Your task to perform on an android device: Show me the alarms in the clock app Image 0: 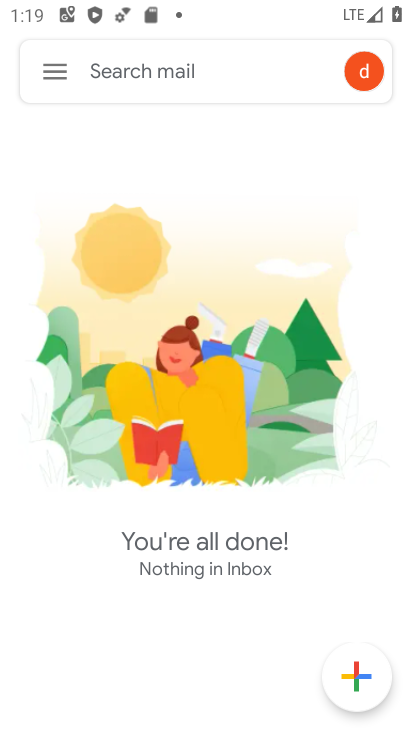
Step 0: press home button
Your task to perform on an android device: Show me the alarms in the clock app Image 1: 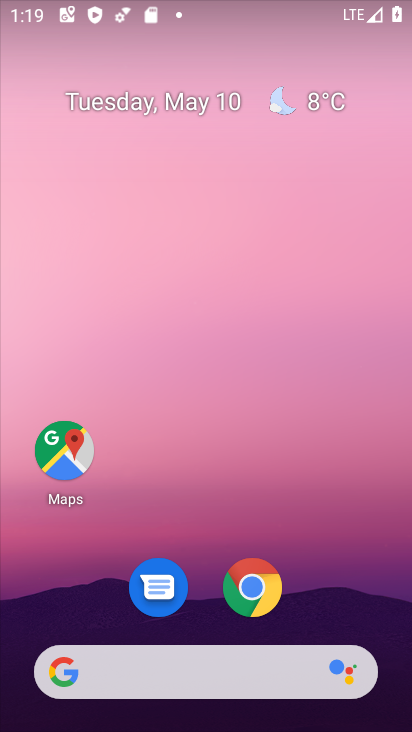
Step 1: drag from (237, 513) to (174, 62)
Your task to perform on an android device: Show me the alarms in the clock app Image 2: 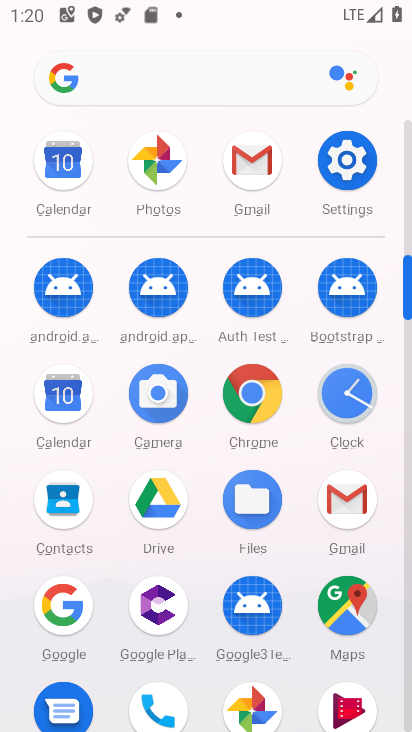
Step 2: click (342, 391)
Your task to perform on an android device: Show me the alarms in the clock app Image 3: 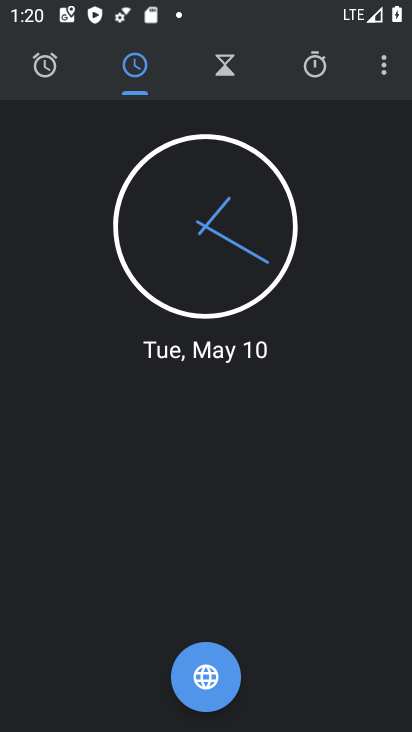
Step 3: click (60, 86)
Your task to perform on an android device: Show me the alarms in the clock app Image 4: 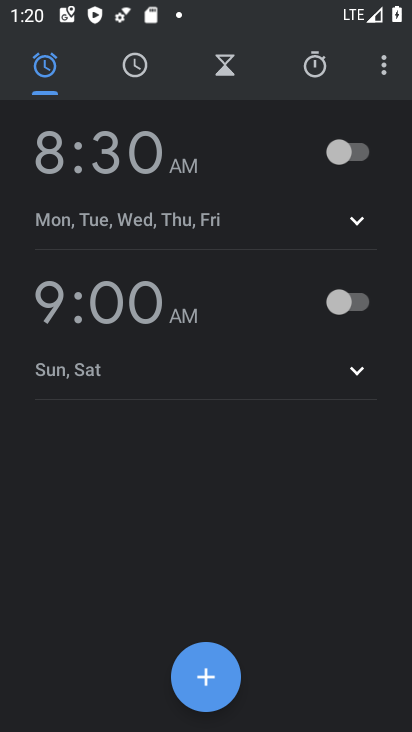
Step 4: task complete